Your task to perform on an android device: uninstall "ColorNote Notepad Notes" Image 0: 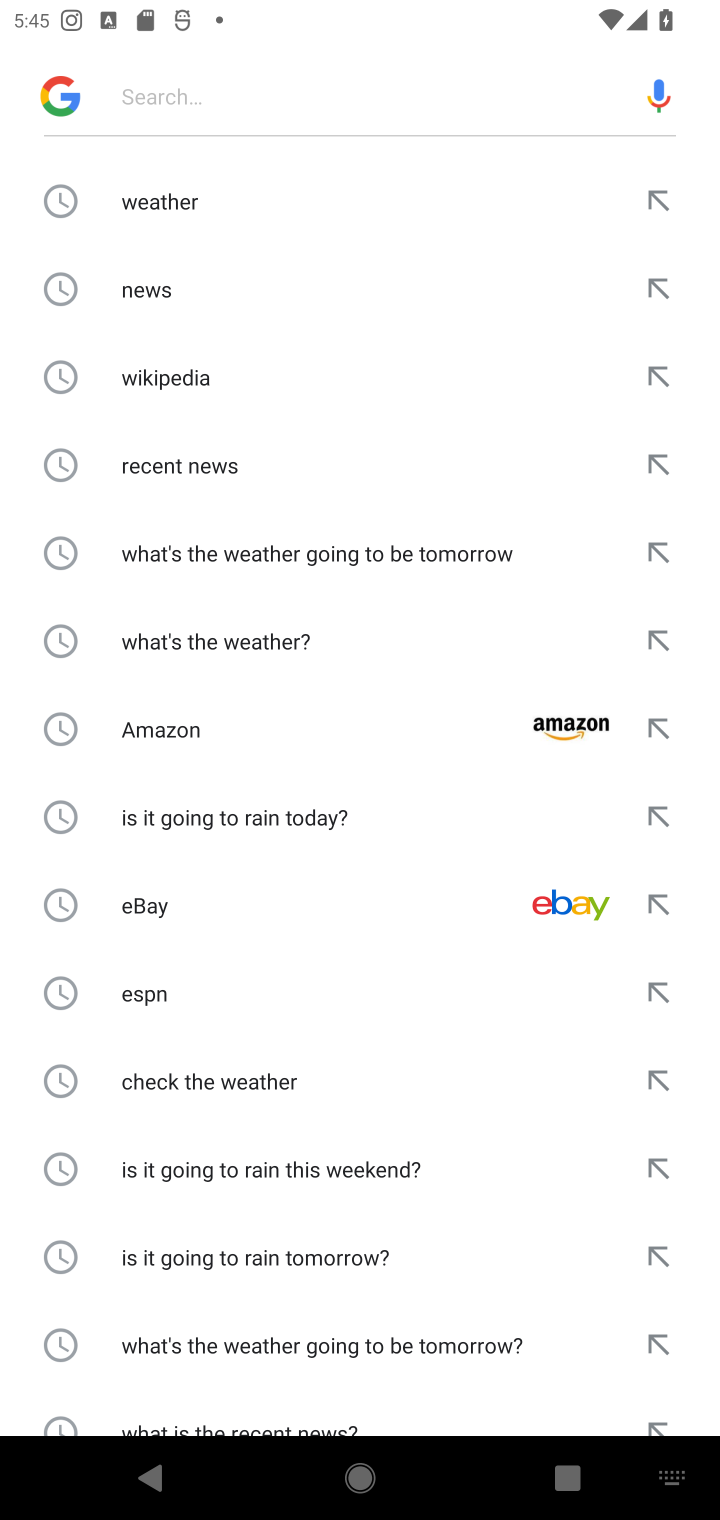
Step 0: press home button
Your task to perform on an android device: uninstall "ColorNote Notepad Notes" Image 1: 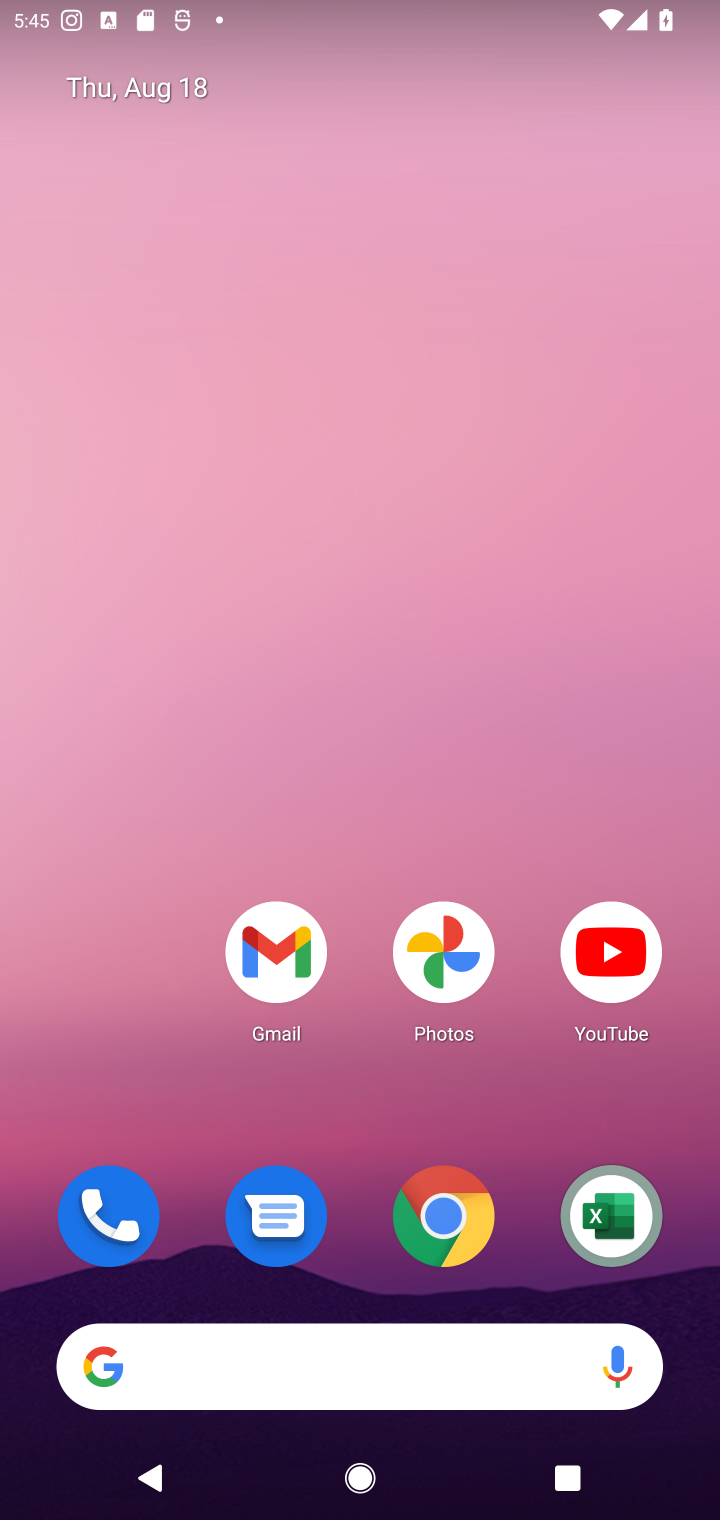
Step 1: drag from (406, 1112) to (404, 195)
Your task to perform on an android device: uninstall "ColorNote Notepad Notes" Image 2: 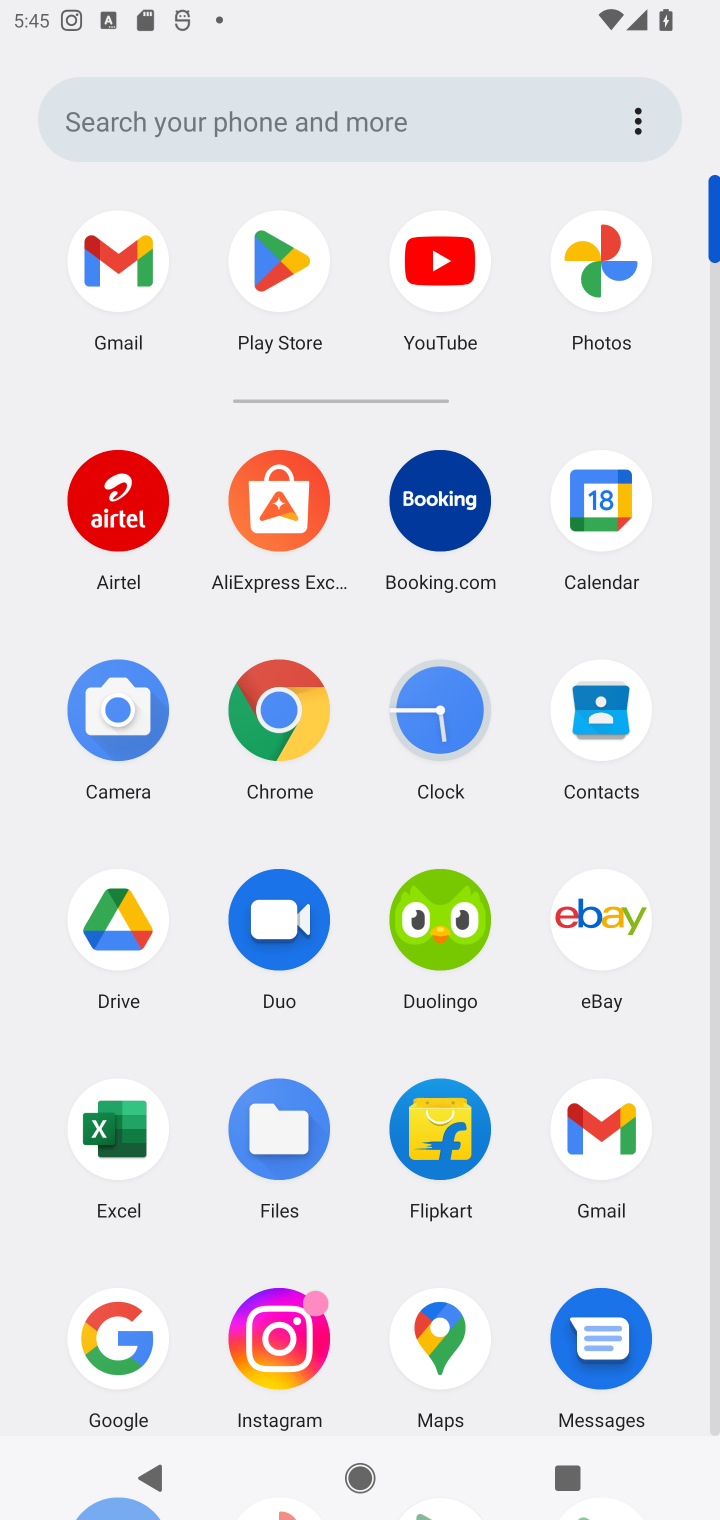
Step 2: click (267, 261)
Your task to perform on an android device: uninstall "ColorNote Notepad Notes" Image 3: 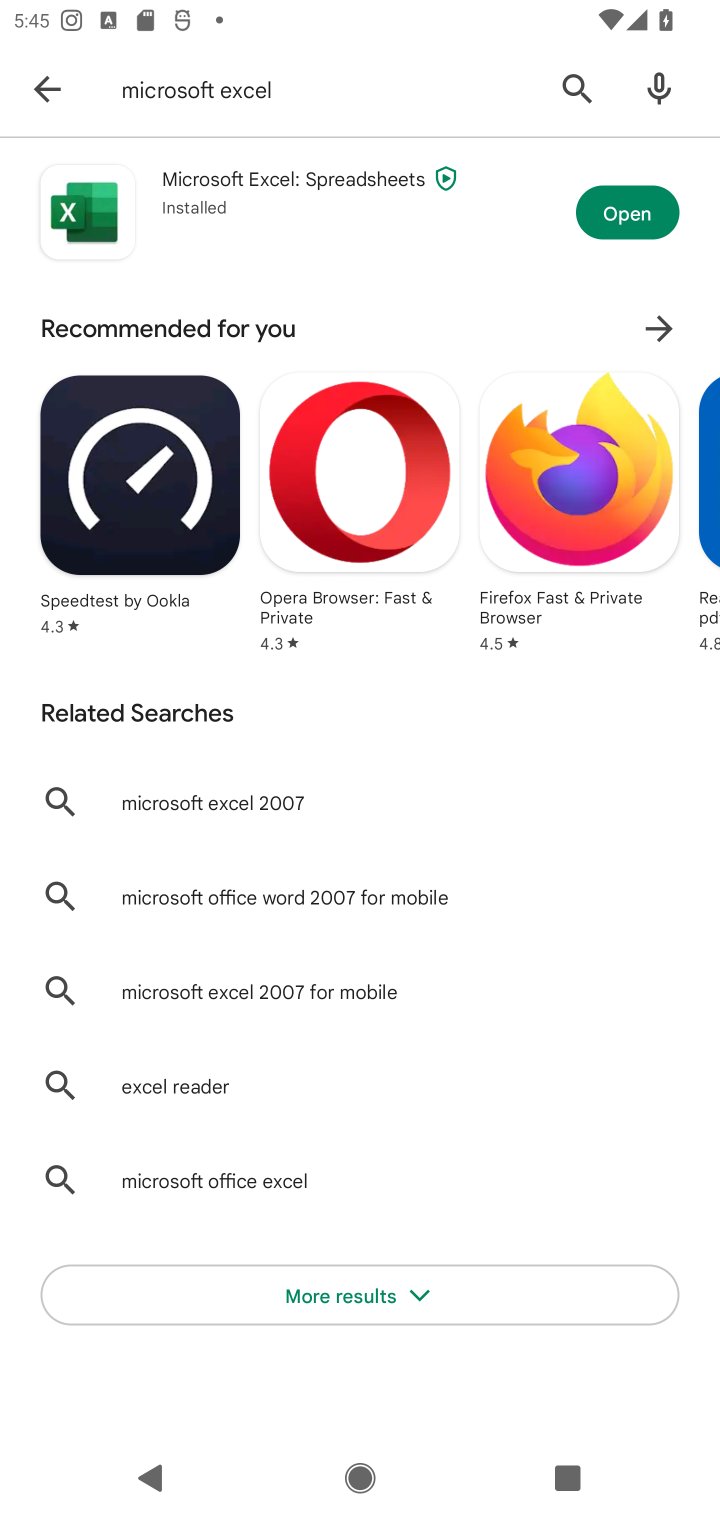
Step 3: click (561, 92)
Your task to perform on an android device: uninstall "ColorNote Notepad Notes" Image 4: 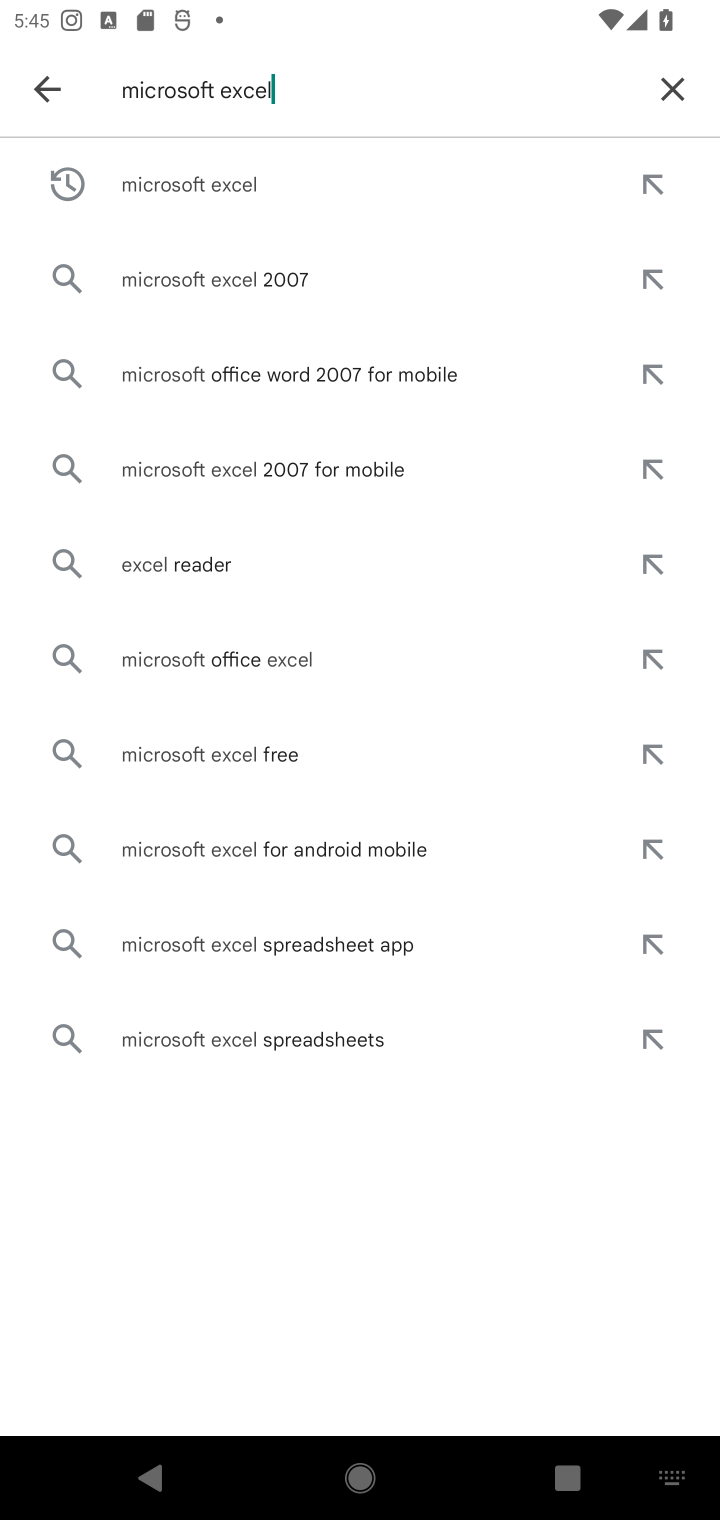
Step 4: click (649, 75)
Your task to perform on an android device: uninstall "ColorNote Notepad Notes" Image 5: 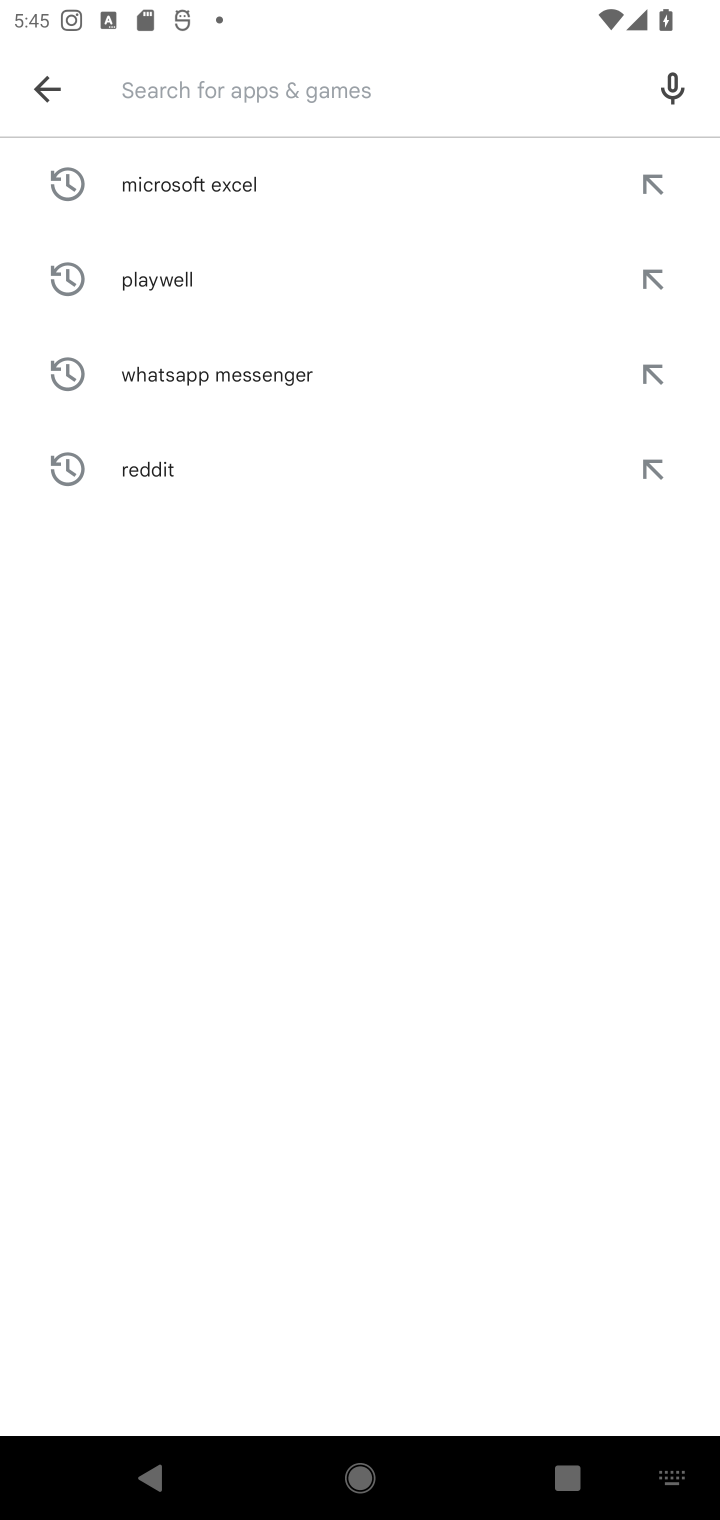
Step 5: type "ColorNote Notepad Notes"
Your task to perform on an android device: uninstall "ColorNote Notepad Notes" Image 6: 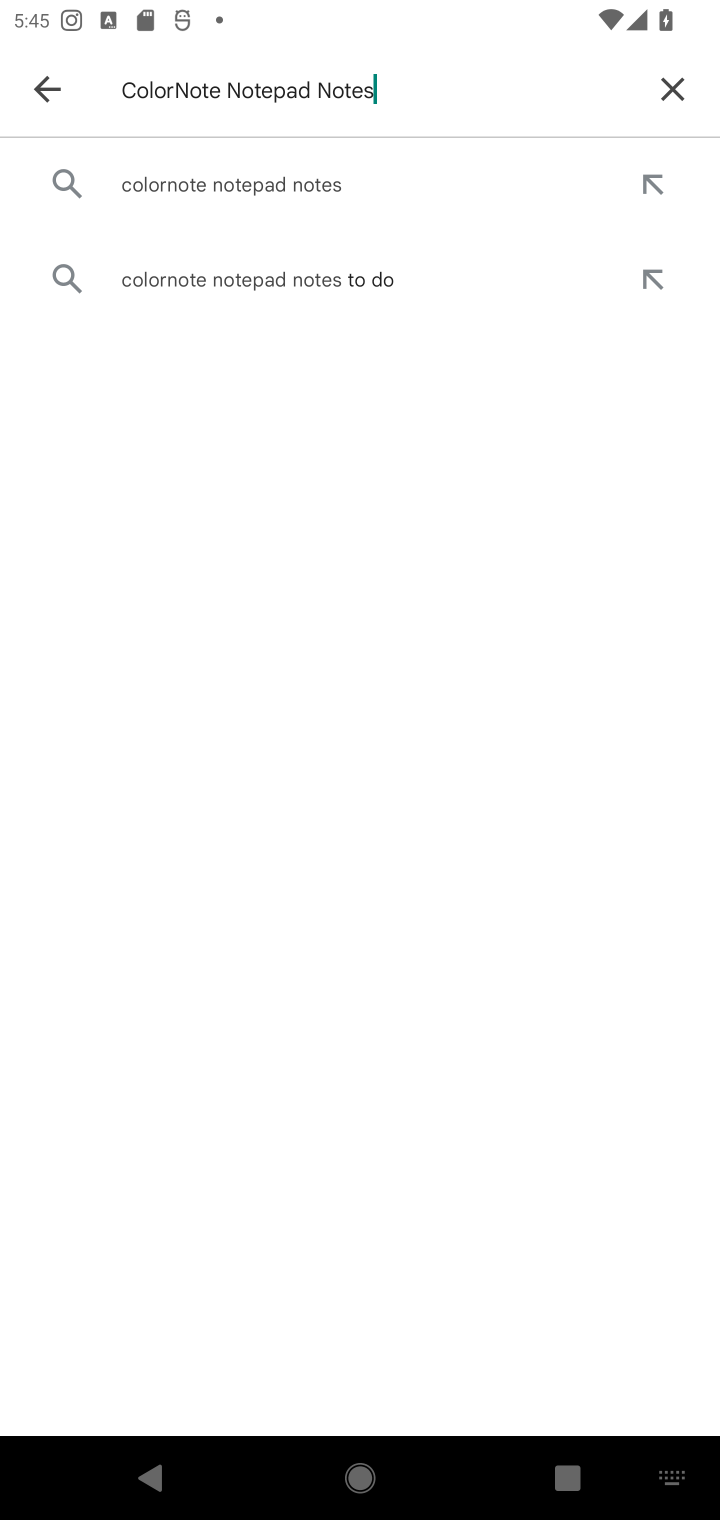
Step 6: click (311, 177)
Your task to perform on an android device: uninstall "ColorNote Notepad Notes" Image 7: 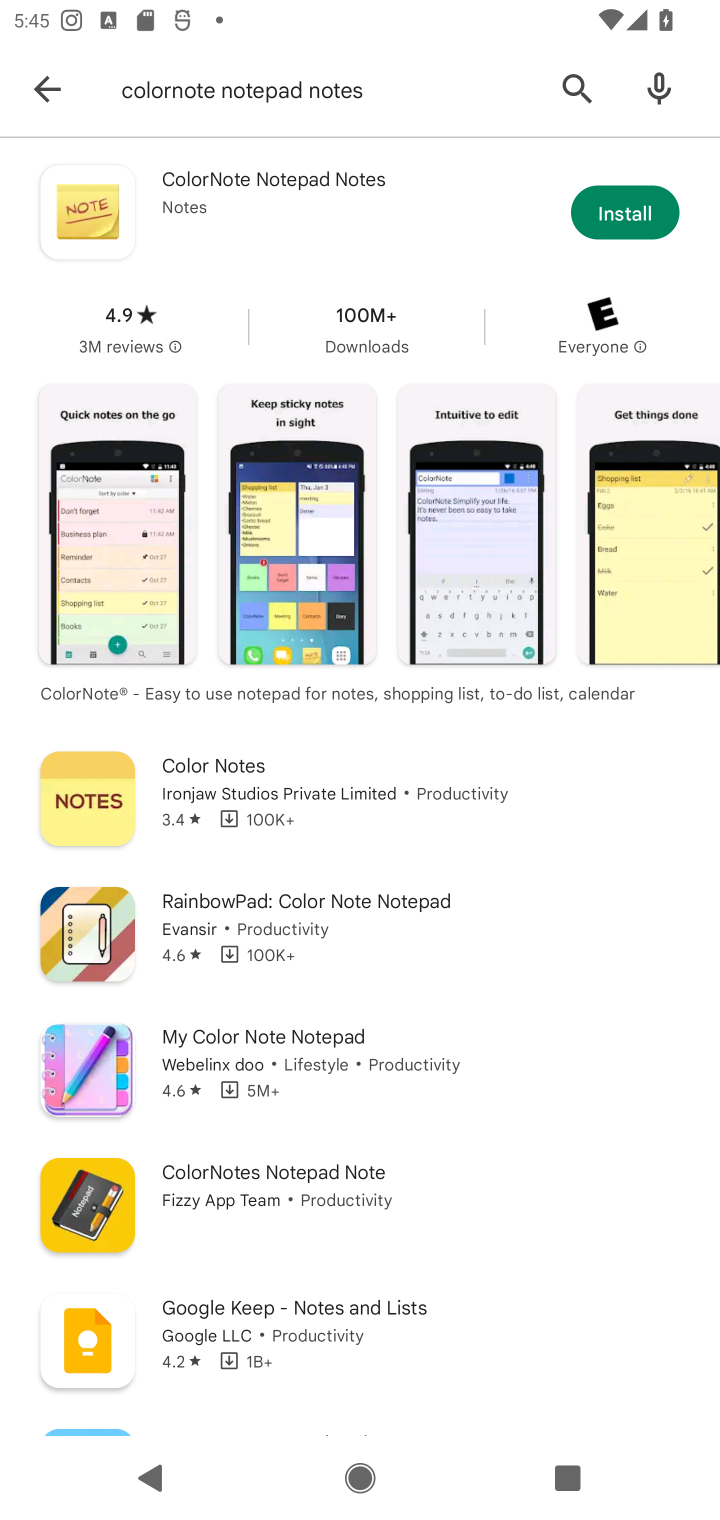
Step 7: click (509, 235)
Your task to perform on an android device: uninstall "ColorNote Notepad Notes" Image 8: 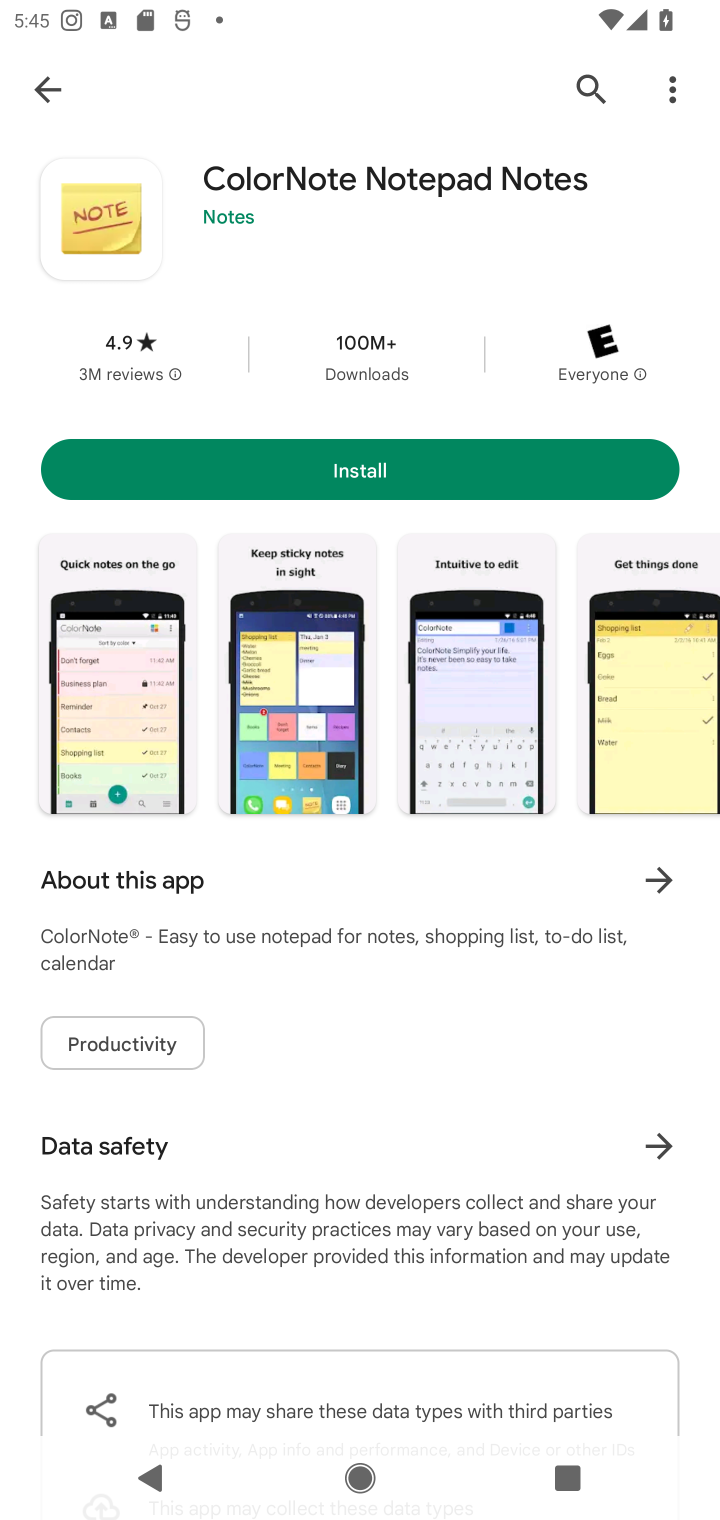
Step 8: task complete